Your task to perform on an android device: Is it going to rain today? Image 0: 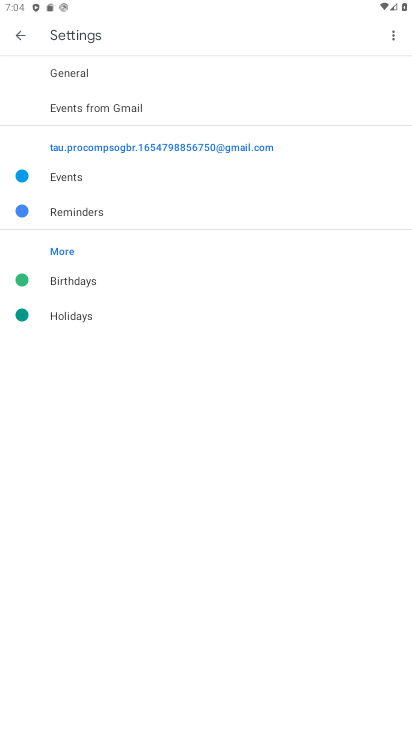
Step 0: press home button
Your task to perform on an android device: Is it going to rain today? Image 1: 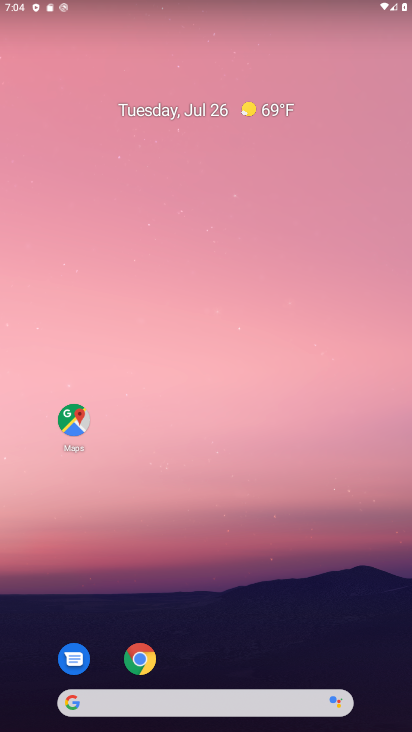
Step 1: click (206, 711)
Your task to perform on an android device: Is it going to rain today? Image 2: 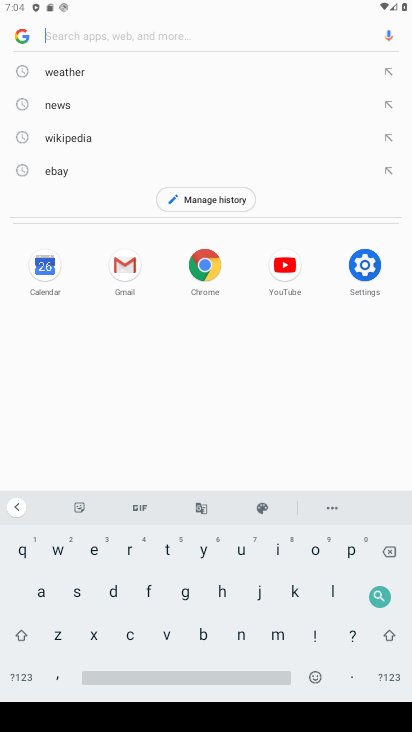
Step 2: click (278, 545)
Your task to perform on an android device: Is it going to rain today? Image 3: 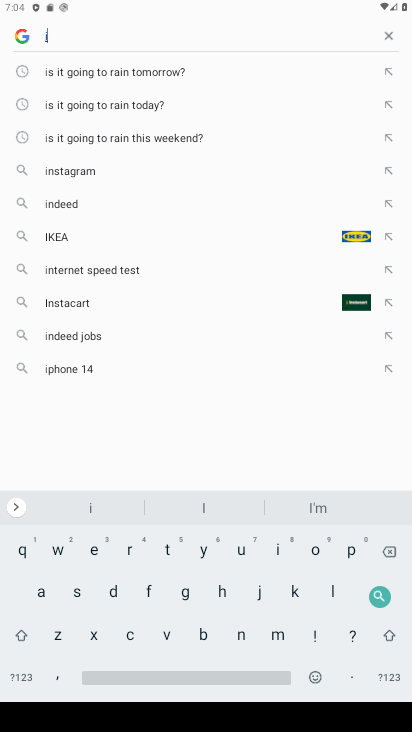
Step 3: click (77, 589)
Your task to perform on an android device: Is it going to rain today? Image 4: 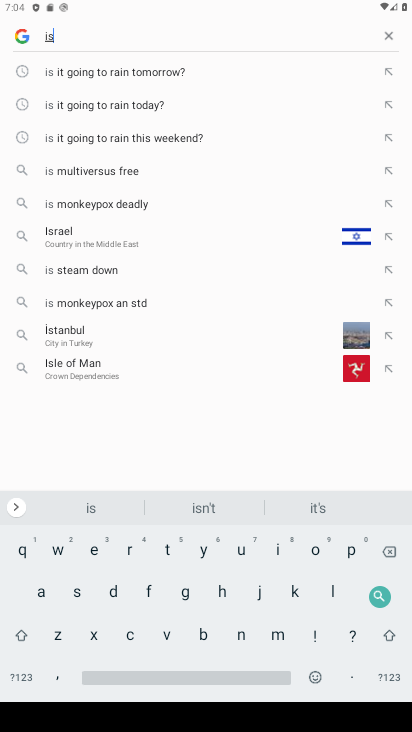
Step 4: click (106, 105)
Your task to perform on an android device: Is it going to rain today? Image 5: 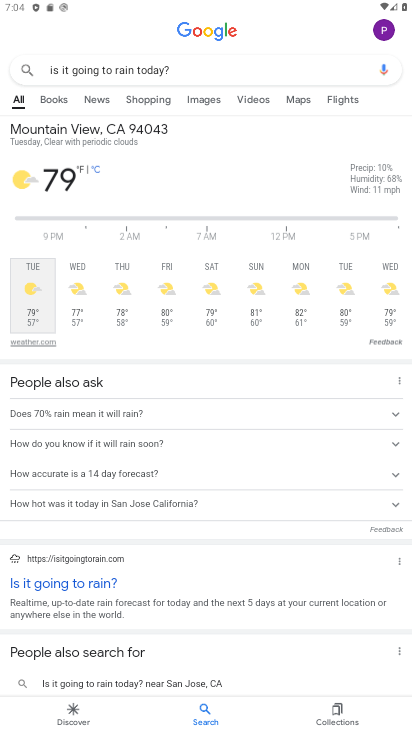
Step 5: task complete